Your task to perform on an android device: set an alarm Image 0: 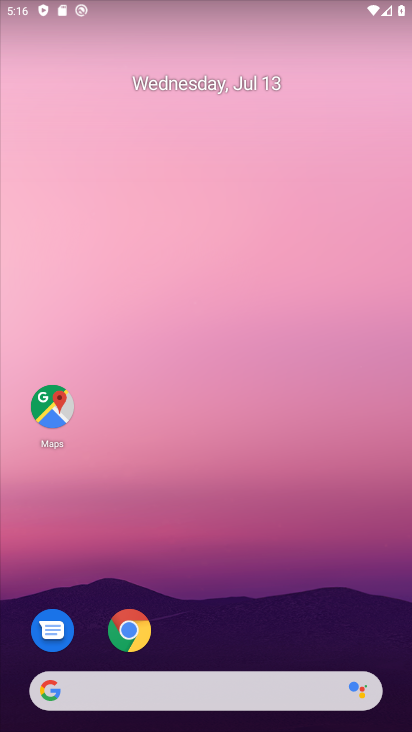
Step 0: drag from (189, 528) to (265, 38)
Your task to perform on an android device: set an alarm Image 1: 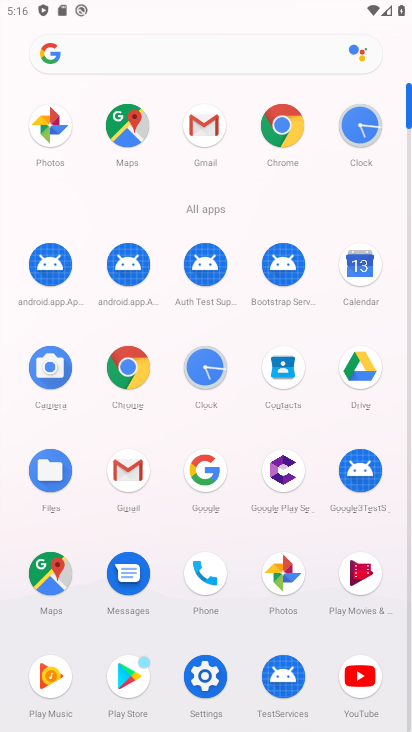
Step 1: click (217, 377)
Your task to perform on an android device: set an alarm Image 2: 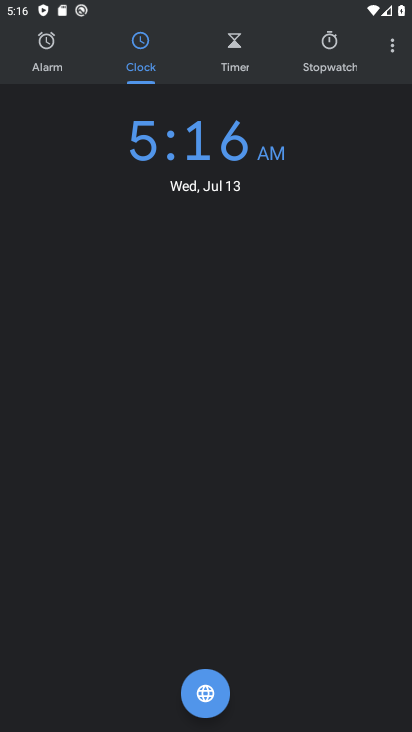
Step 2: click (31, 49)
Your task to perform on an android device: set an alarm Image 3: 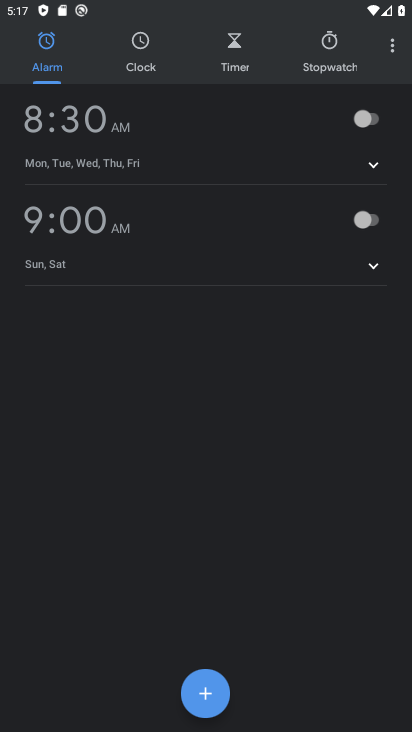
Step 3: click (219, 690)
Your task to perform on an android device: set an alarm Image 4: 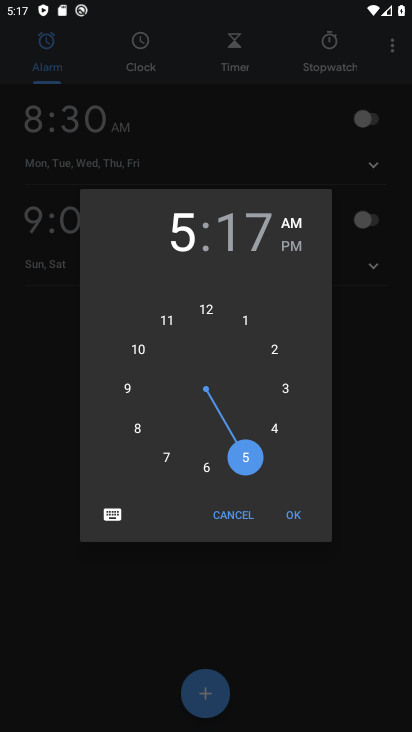
Step 4: click (210, 459)
Your task to perform on an android device: set an alarm Image 5: 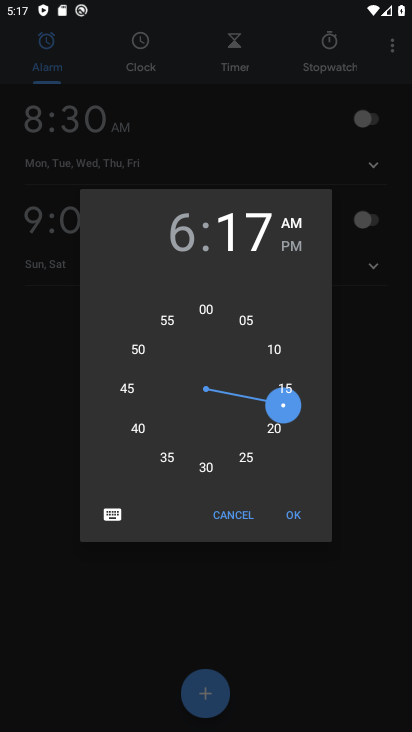
Step 5: click (204, 466)
Your task to perform on an android device: set an alarm Image 6: 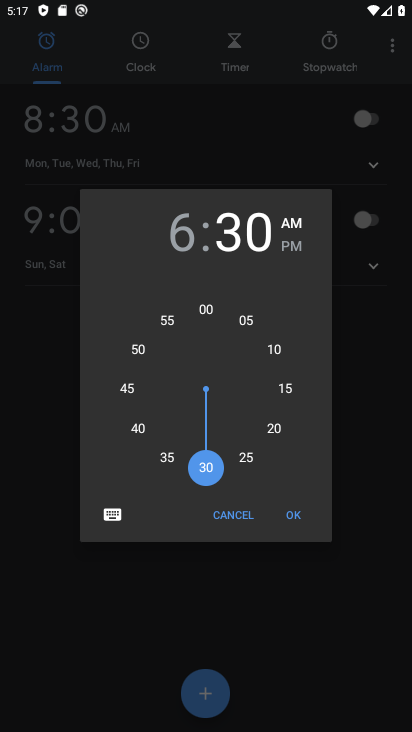
Step 6: click (282, 513)
Your task to perform on an android device: set an alarm Image 7: 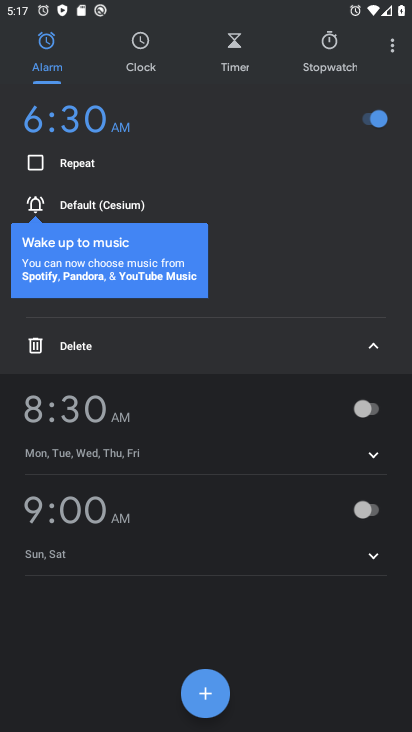
Step 7: task complete